Your task to perform on an android device: Find coffee shops on Maps Image 0: 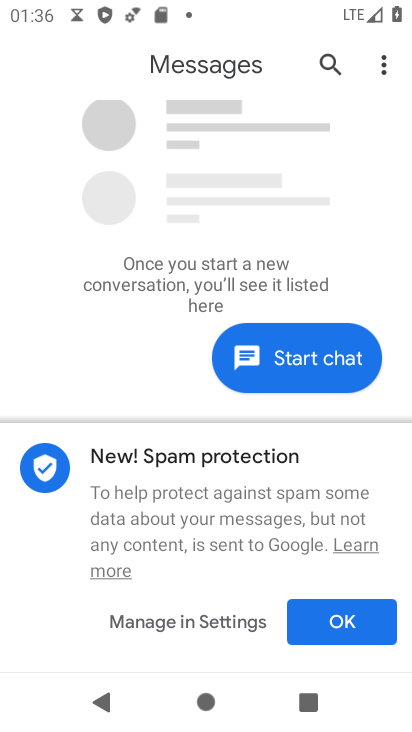
Step 0: press home button
Your task to perform on an android device: Find coffee shops on Maps Image 1: 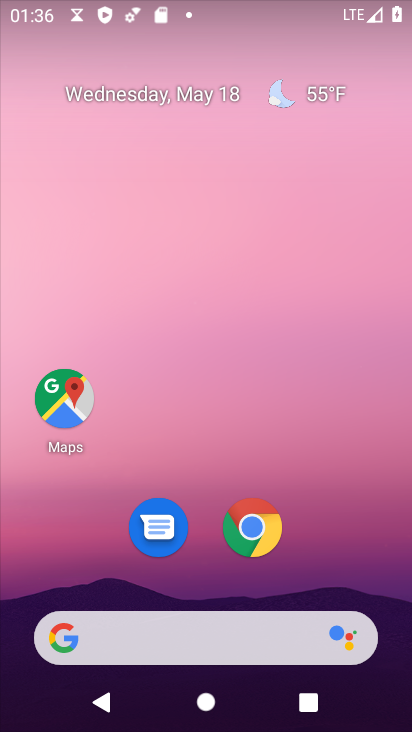
Step 1: click (88, 399)
Your task to perform on an android device: Find coffee shops on Maps Image 2: 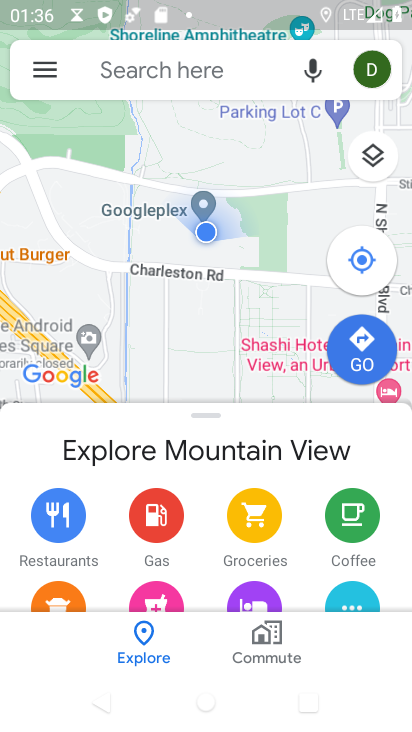
Step 2: press home button
Your task to perform on an android device: Find coffee shops on Maps Image 3: 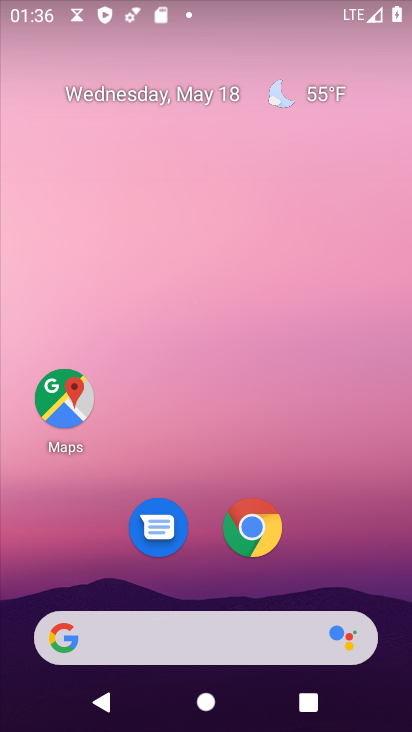
Step 3: click (63, 385)
Your task to perform on an android device: Find coffee shops on Maps Image 4: 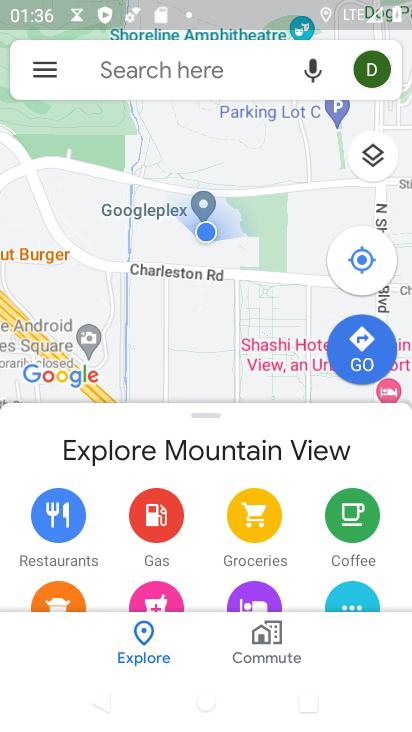
Step 4: click (160, 80)
Your task to perform on an android device: Find coffee shops on Maps Image 5: 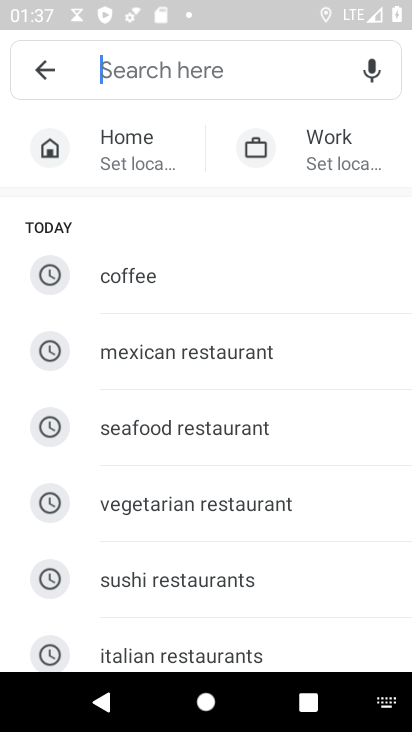
Step 5: click (188, 280)
Your task to perform on an android device: Find coffee shops on Maps Image 6: 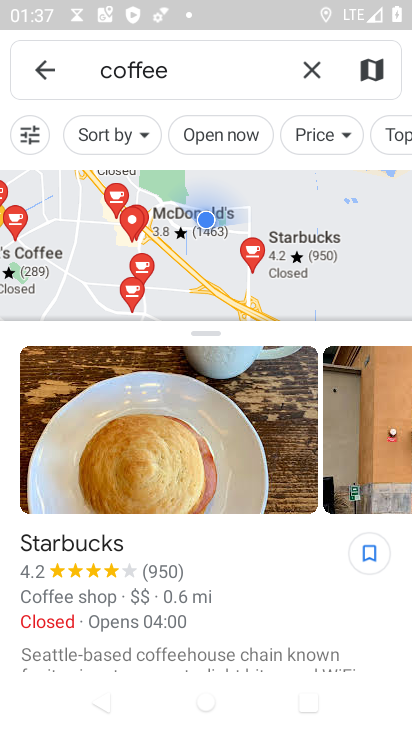
Step 6: task complete